Your task to perform on an android device: Open the calendar and show me this week's events? Image 0: 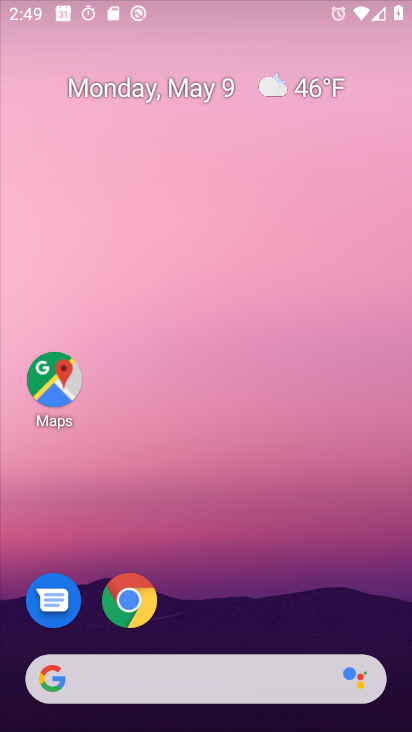
Step 0: drag from (193, 670) to (238, 79)
Your task to perform on an android device: Open the calendar and show me this week's events? Image 1: 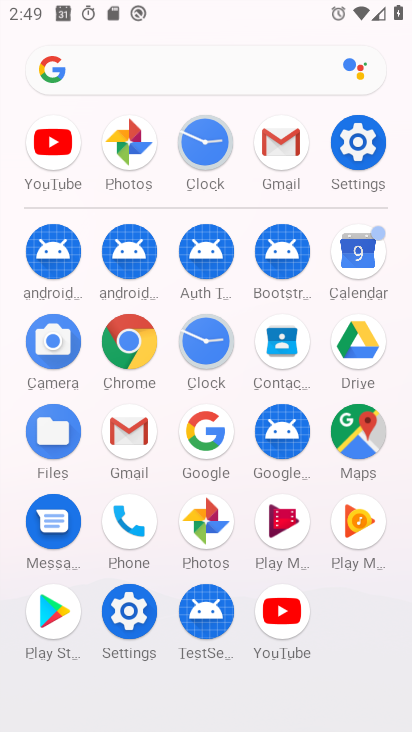
Step 1: click (370, 265)
Your task to perform on an android device: Open the calendar and show me this week's events? Image 2: 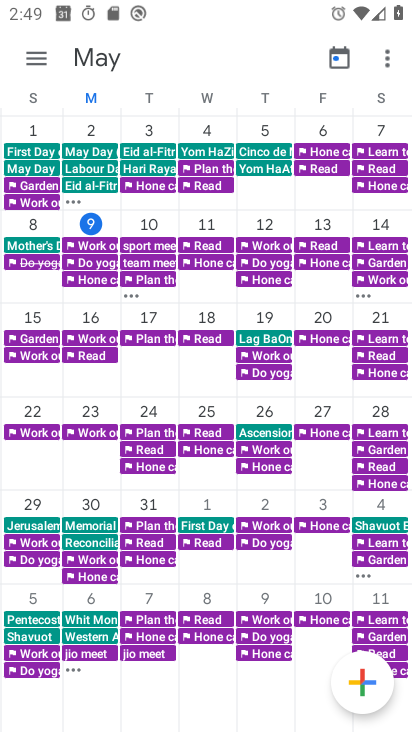
Step 2: task complete